Your task to perform on an android device: check the backup settings in the google photos Image 0: 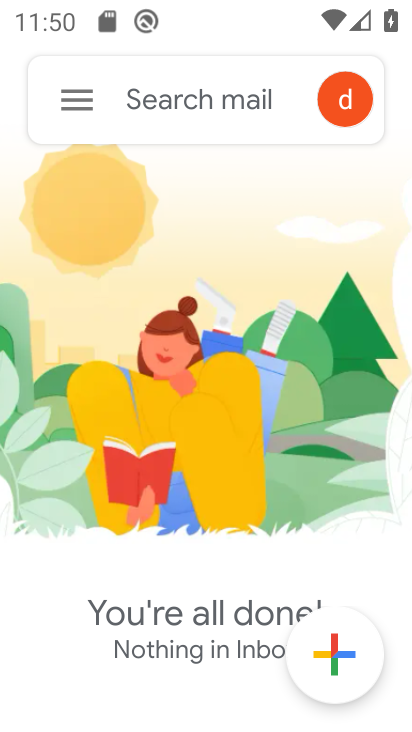
Step 0: press home button
Your task to perform on an android device: check the backup settings in the google photos Image 1: 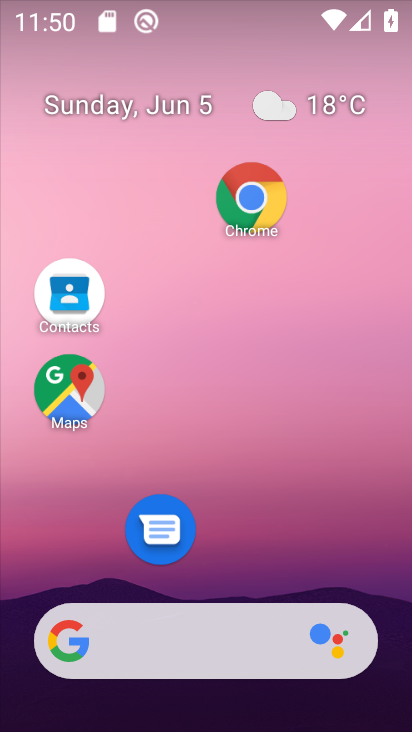
Step 1: drag from (257, 572) to (222, 54)
Your task to perform on an android device: check the backup settings in the google photos Image 2: 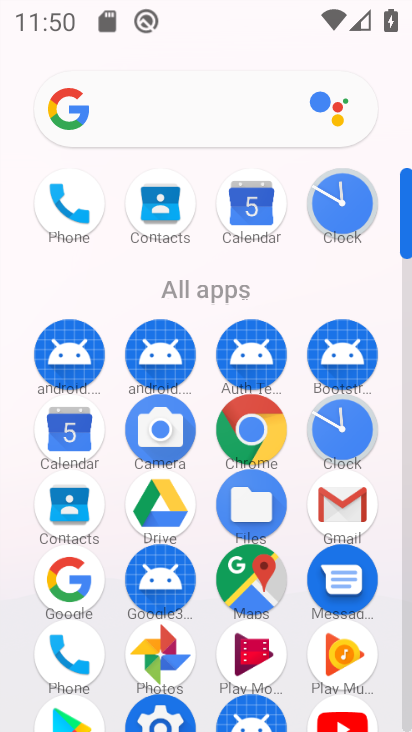
Step 2: click (174, 658)
Your task to perform on an android device: check the backup settings in the google photos Image 3: 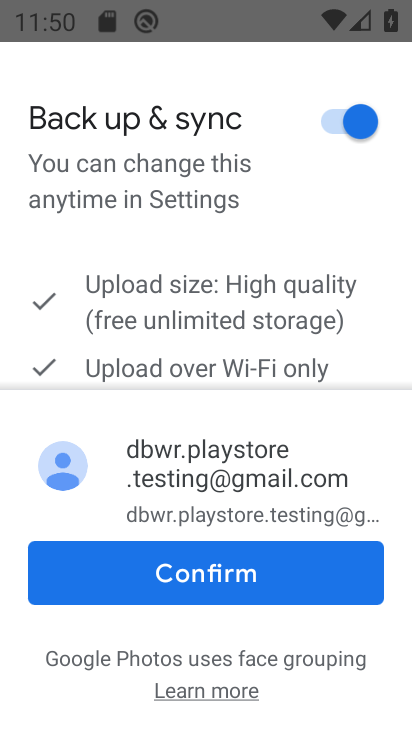
Step 3: click (128, 568)
Your task to perform on an android device: check the backup settings in the google photos Image 4: 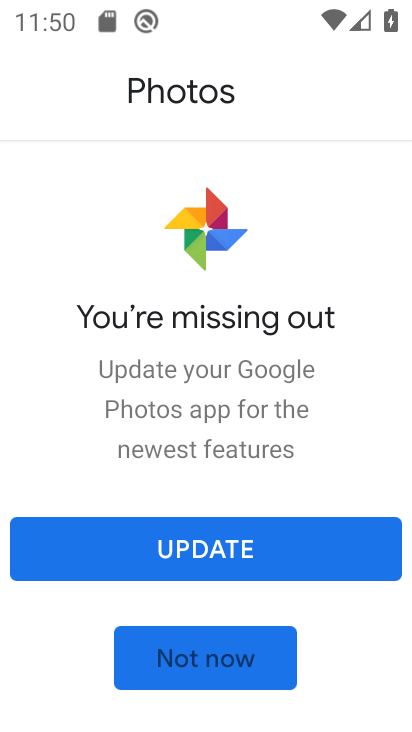
Step 4: click (146, 536)
Your task to perform on an android device: check the backup settings in the google photos Image 5: 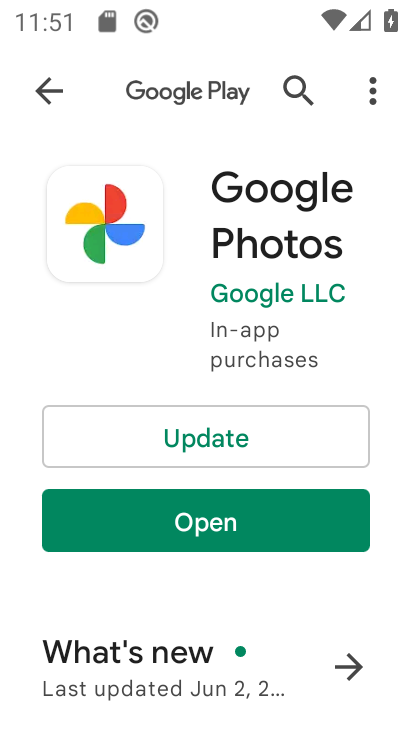
Step 5: click (232, 443)
Your task to perform on an android device: check the backup settings in the google photos Image 6: 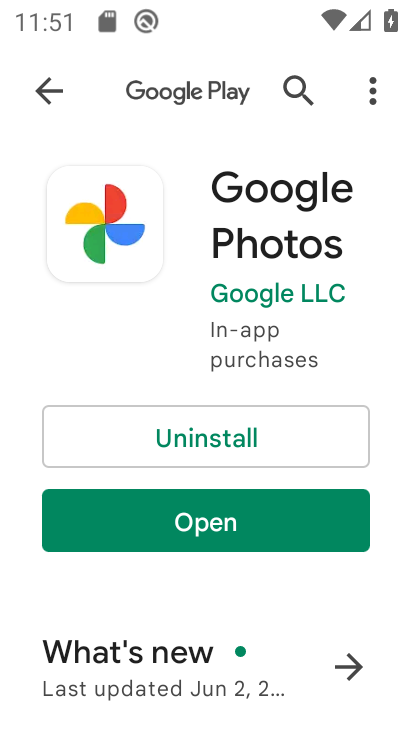
Step 6: click (271, 505)
Your task to perform on an android device: check the backup settings in the google photos Image 7: 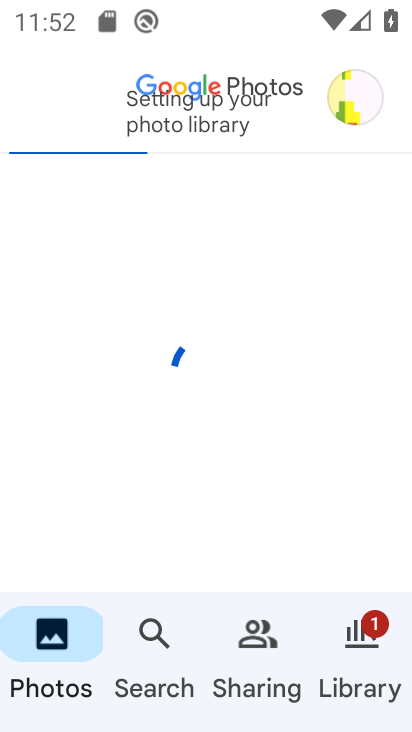
Step 7: click (337, 93)
Your task to perform on an android device: check the backup settings in the google photos Image 8: 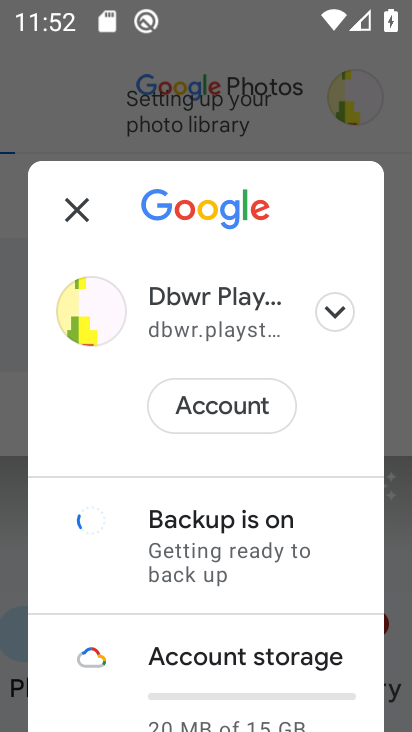
Step 8: drag from (298, 583) to (235, 213)
Your task to perform on an android device: check the backup settings in the google photos Image 9: 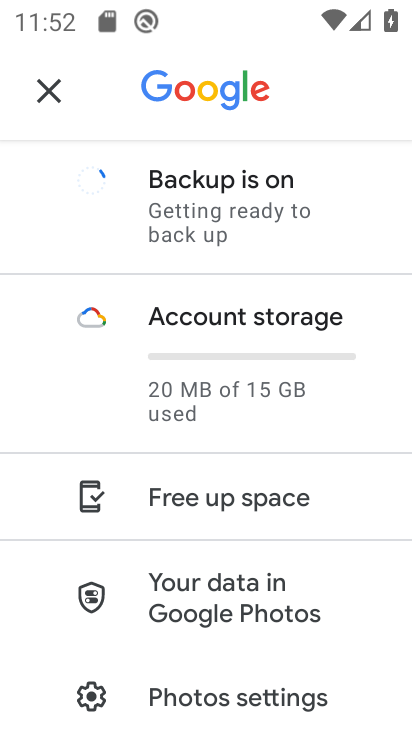
Step 9: click (261, 685)
Your task to perform on an android device: check the backup settings in the google photos Image 10: 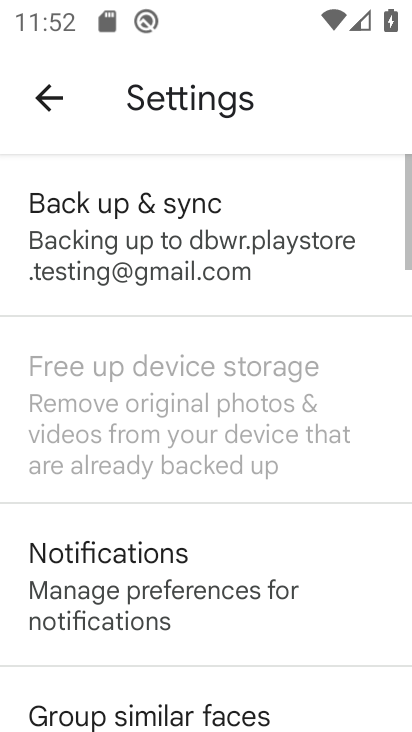
Step 10: click (122, 290)
Your task to perform on an android device: check the backup settings in the google photos Image 11: 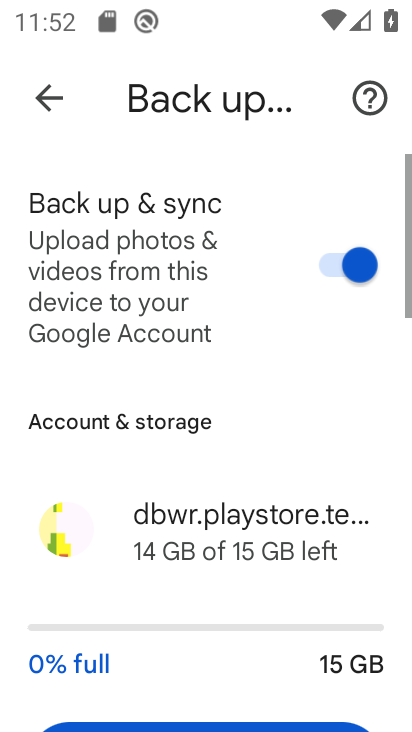
Step 11: task complete